Your task to perform on an android device: Go to wifi settings Image 0: 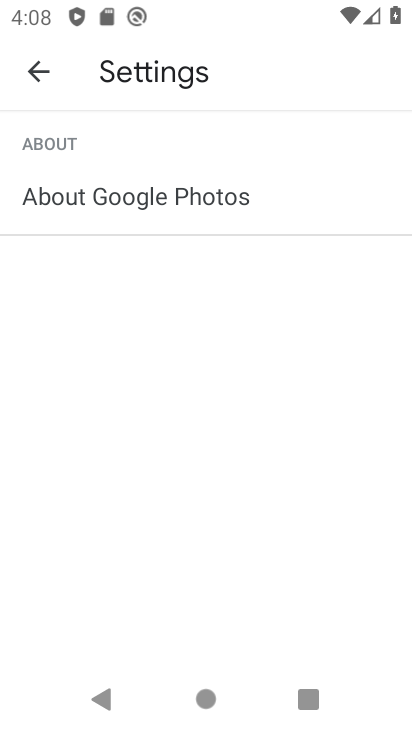
Step 0: press back button
Your task to perform on an android device: Go to wifi settings Image 1: 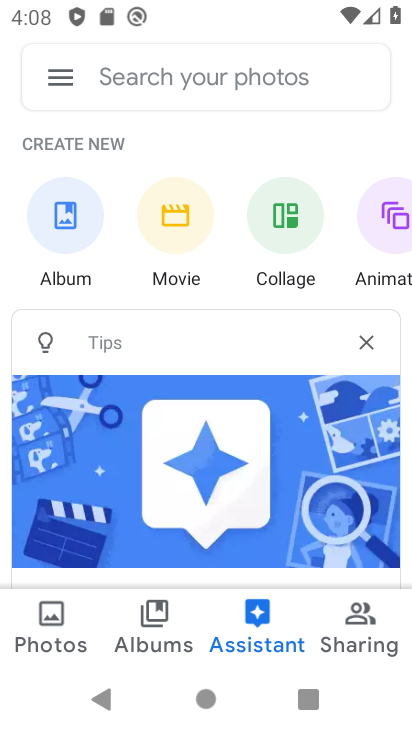
Step 1: drag from (379, 633) to (111, 137)
Your task to perform on an android device: Go to wifi settings Image 2: 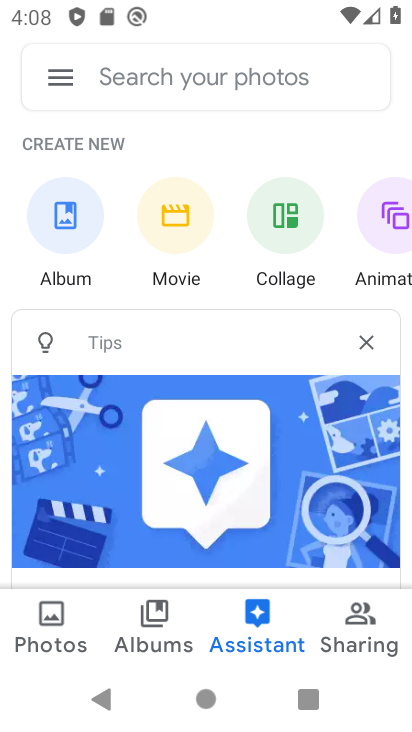
Step 2: drag from (276, 628) to (59, 24)
Your task to perform on an android device: Go to wifi settings Image 3: 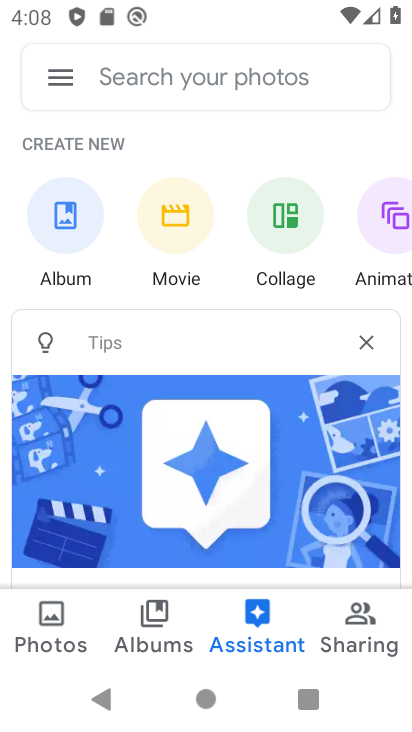
Step 3: drag from (286, 418) to (138, 2)
Your task to perform on an android device: Go to wifi settings Image 4: 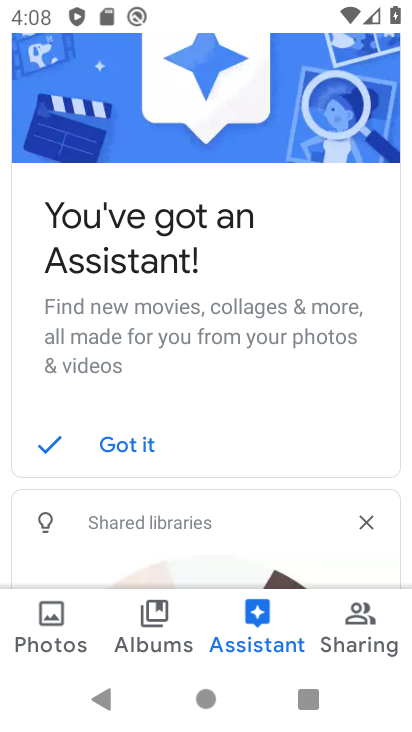
Step 4: press home button
Your task to perform on an android device: Go to wifi settings Image 5: 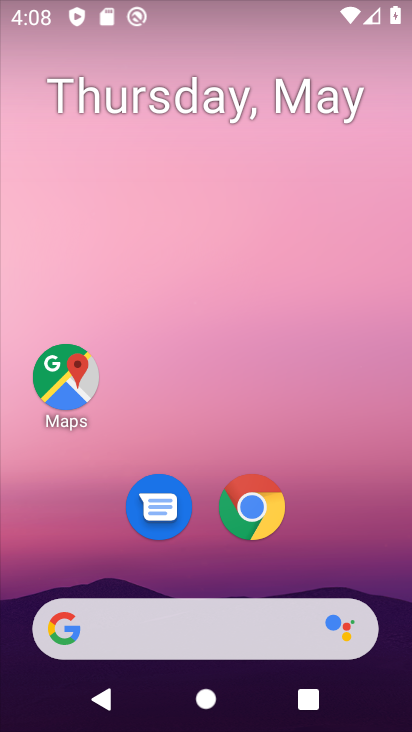
Step 5: drag from (134, 45) to (75, 19)
Your task to perform on an android device: Go to wifi settings Image 6: 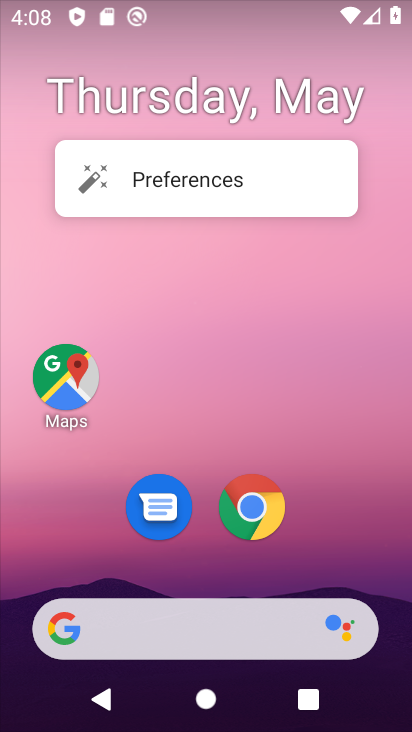
Step 6: drag from (302, 455) to (90, 39)
Your task to perform on an android device: Go to wifi settings Image 7: 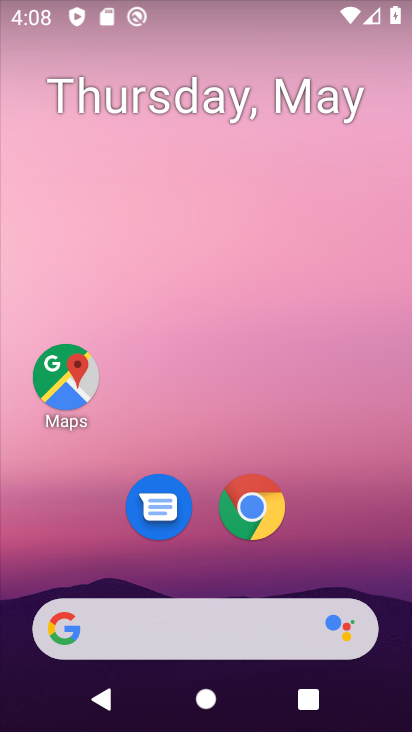
Step 7: drag from (156, 257) to (68, 88)
Your task to perform on an android device: Go to wifi settings Image 8: 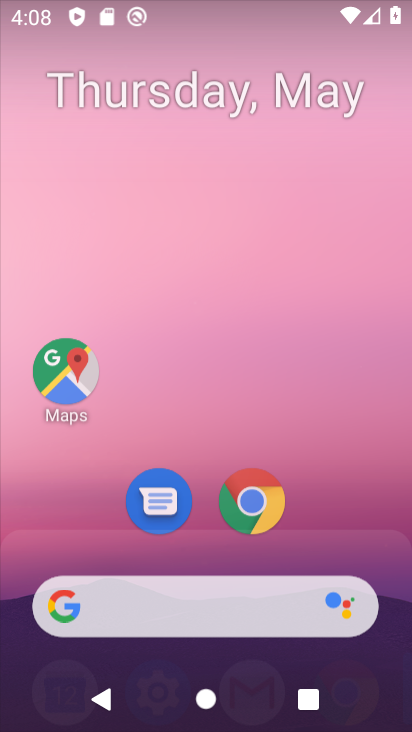
Step 8: drag from (267, 429) to (4, 82)
Your task to perform on an android device: Go to wifi settings Image 9: 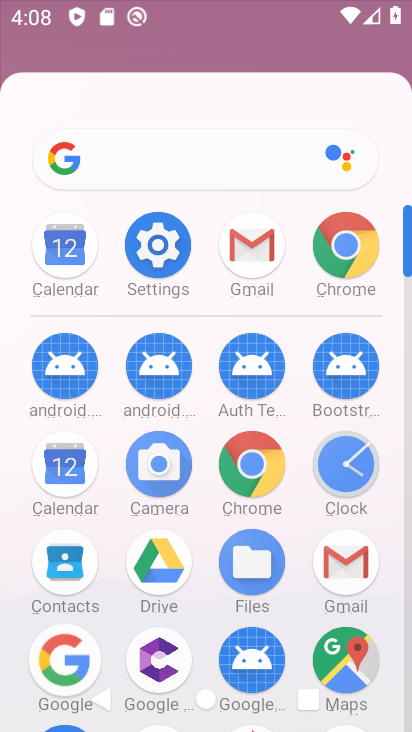
Step 9: drag from (229, 466) to (54, 10)
Your task to perform on an android device: Go to wifi settings Image 10: 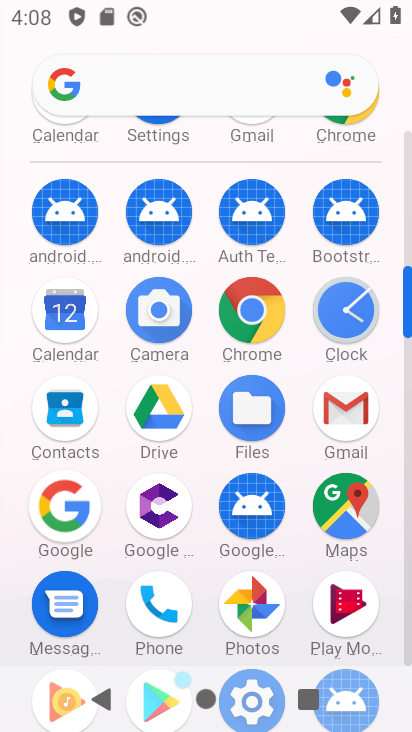
Step 10: drag from (167, 197) to (232, 526)
Your task to perform on an android device: Go to wifi settings Image 11: 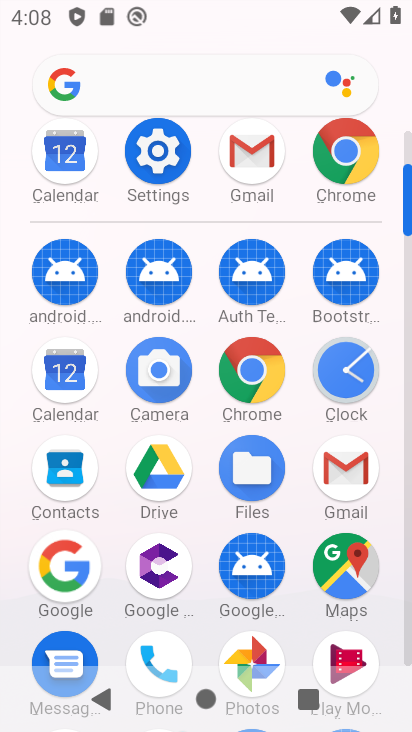
Step 11: click (158, 162)
Your task to perform on an android device: Go to wifi settings Image 12: 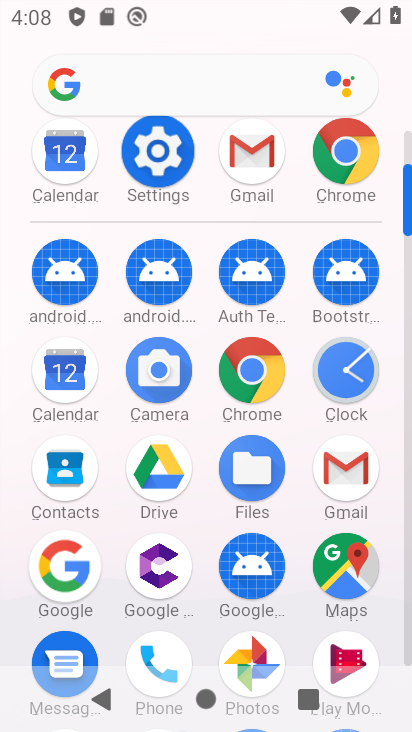
Step 12: click (159, 161)
Your task to perform on an android device: Go to wifi settings Image 13: 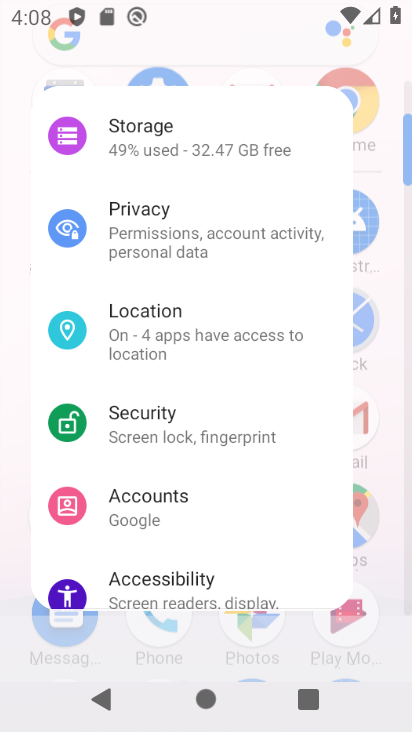
Step 13: click (159, 161)
Your task to perform on an android device: Go to wifi settings Image 14: 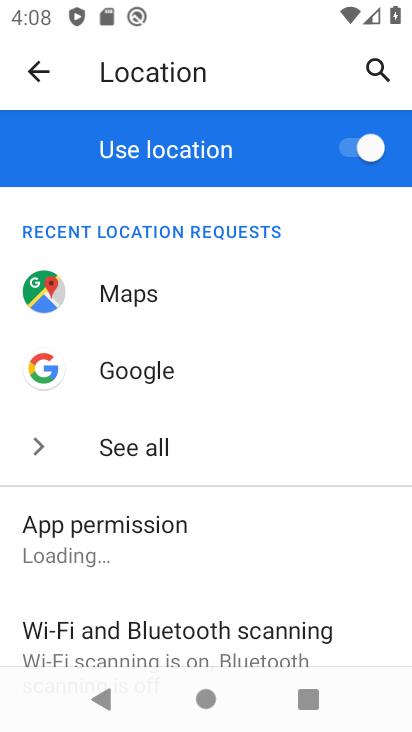
Step 14: click (33, 77)
Your task to perform on an android device: Go to wifi settings Image 15: 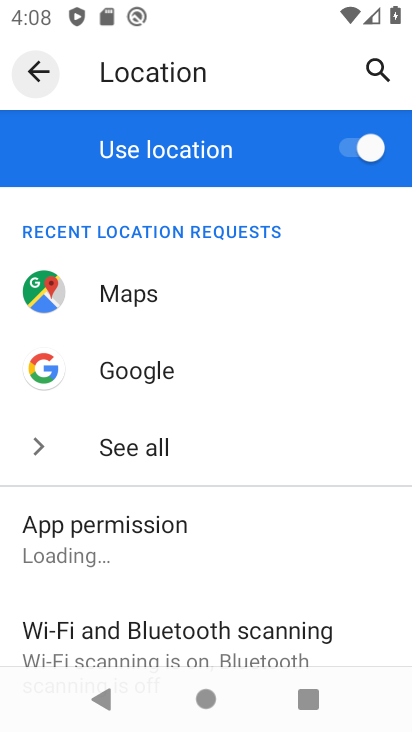
Step 15: click (33, 77)
Your task to perform on an android device: Go to wifi settings Image 16: 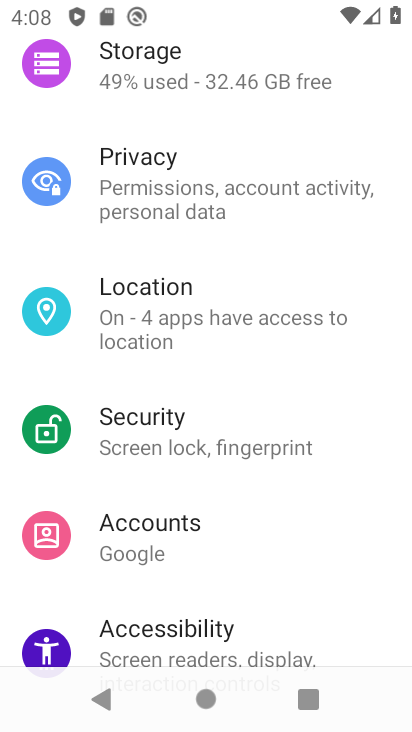
Step 16: drag from (174, 161) to (264, 528)
Your task to perform on an android device: Go to wifi settings Image 17: 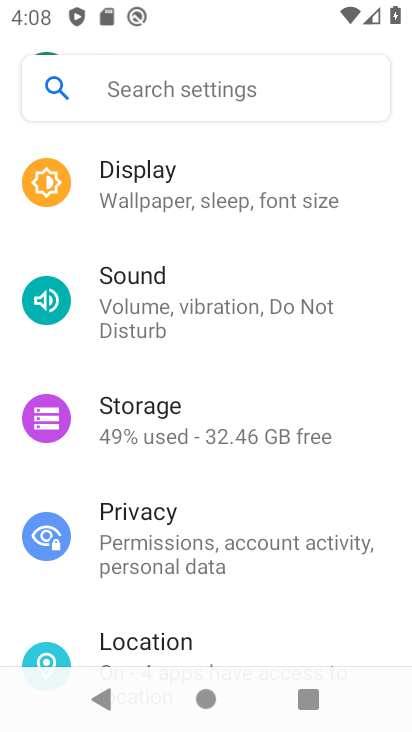
Step 17: drag from (209, 249) to (263, 549)
Your task to perform on an android device: Go to wifi settings Image 18: 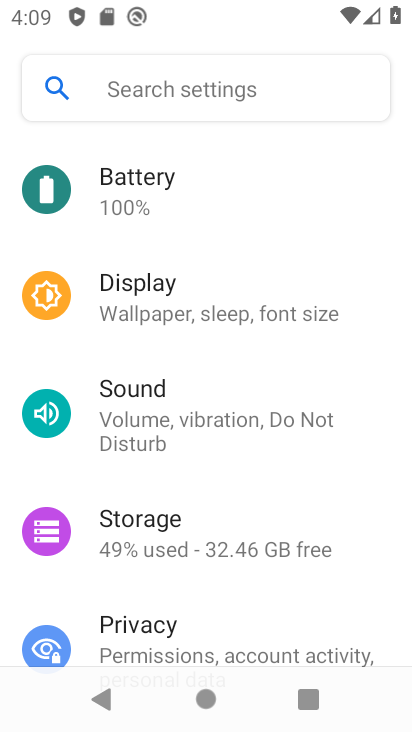
Step 18: drag from (133, 194) to (163, 522)
Your task to perform on an android device: Go to wifi settings Image 19: 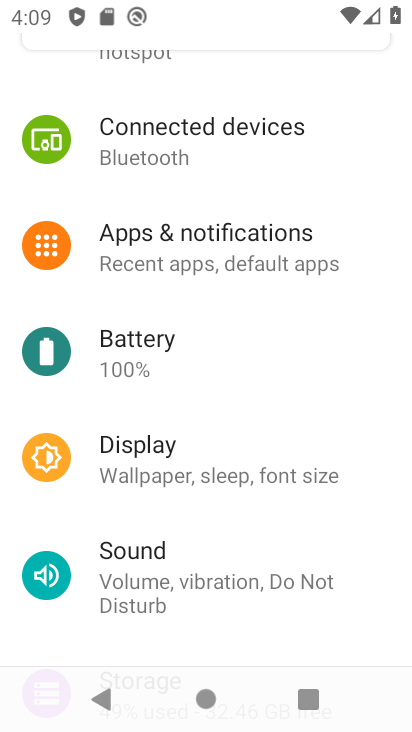
Step 19: drag from (166, 342) to (179, 726)
Your task to perform on an android device: Go to wifi settings Image 20: 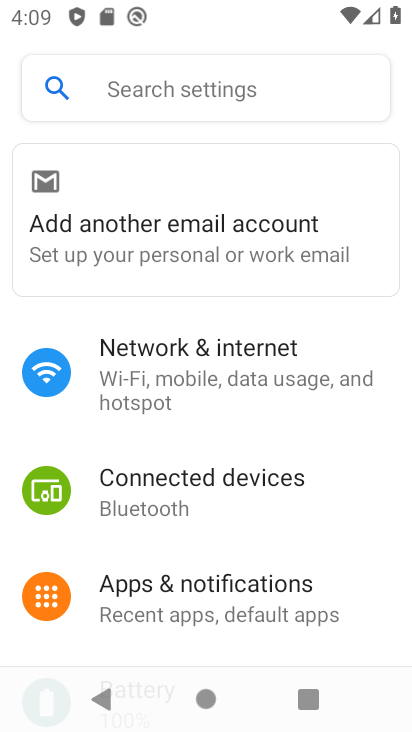
Step 20: click (196, 367)
Your task to perform on an android device: Go to wifi settings Image 21: 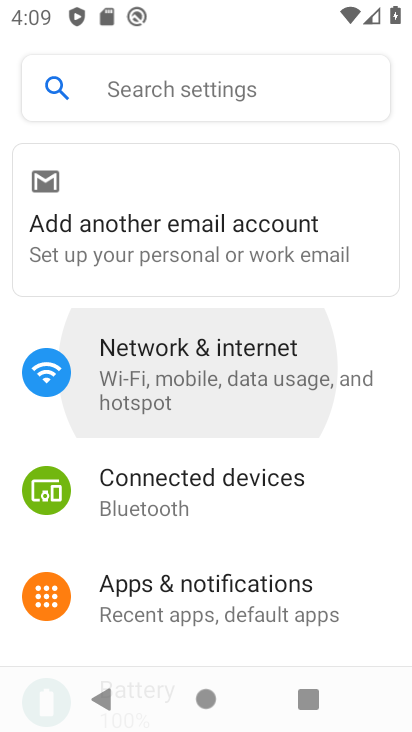
Step 21: click (196, 367)
Your task to perform on an android device: Go to wifi settings Image 22: 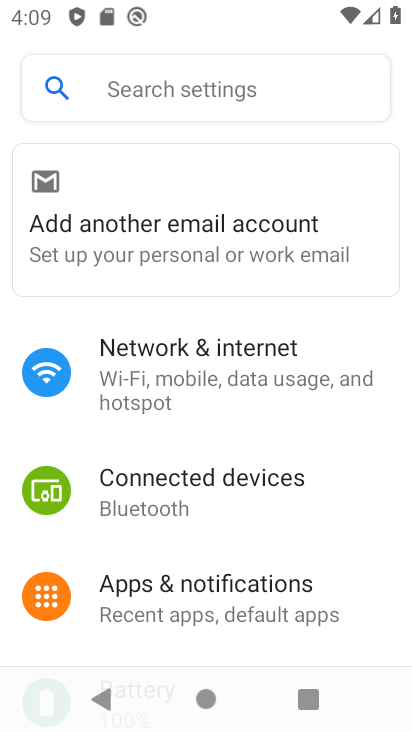
Step 22: click (186, 372)
Your task to perform on an android device: Go to wifi settings Image 23: 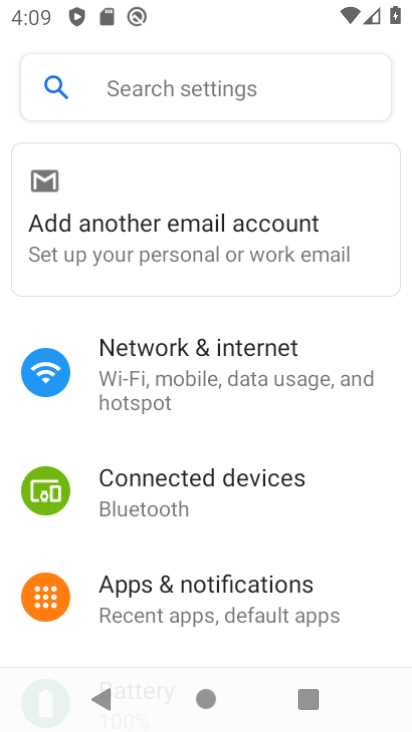
Step 23: click (174, 383)
Your task to perform on an android device: Go to wifi settings Image 24: 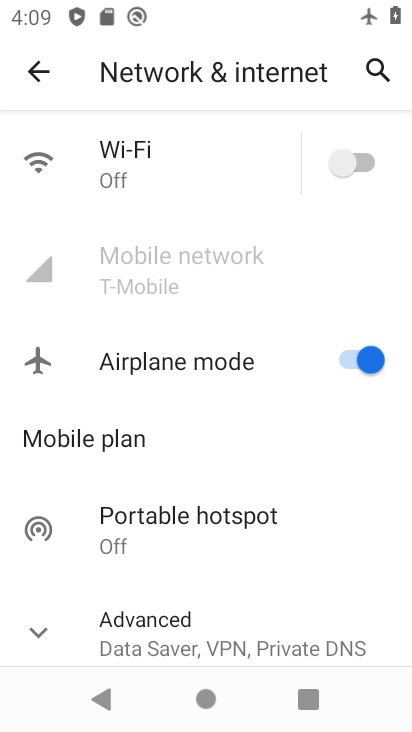
Step 24: click (367, 356)
Your task to perform on an android device: Go to wifi settings Image 25: 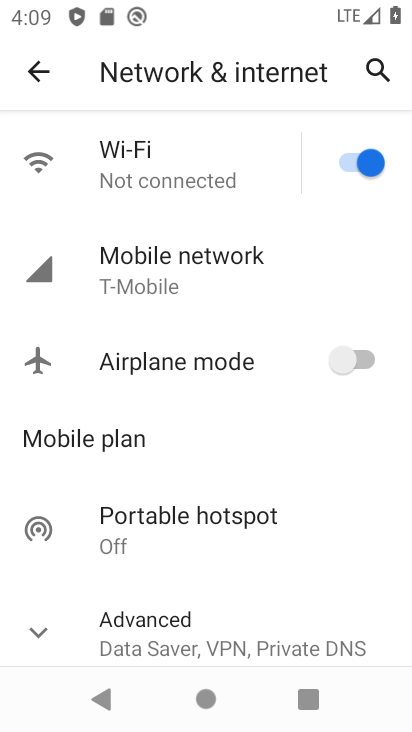
Step 25: task complete